Your task to perform on an android device: allow notifications from all sites in the chrome app Image 0: 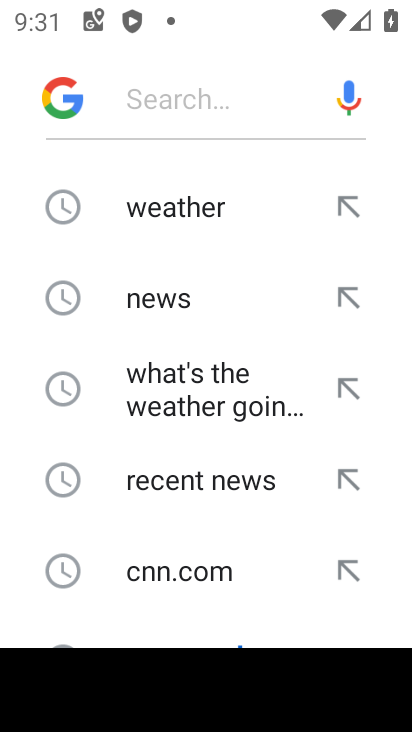
Step 0: press home button
Your task to perform on an android device: allow notifications from all sites in the chrome app Image 1: 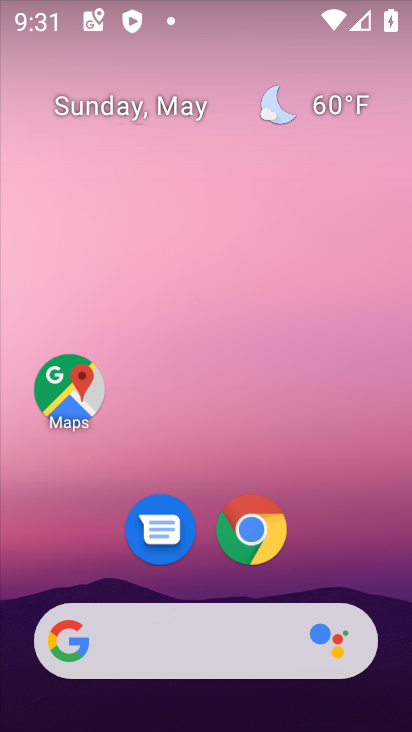
Step 1: drag from (361, 547) to (376, 120)
Your task to perform on an android device: allow notifications from all sites in the chrome app Image 2: 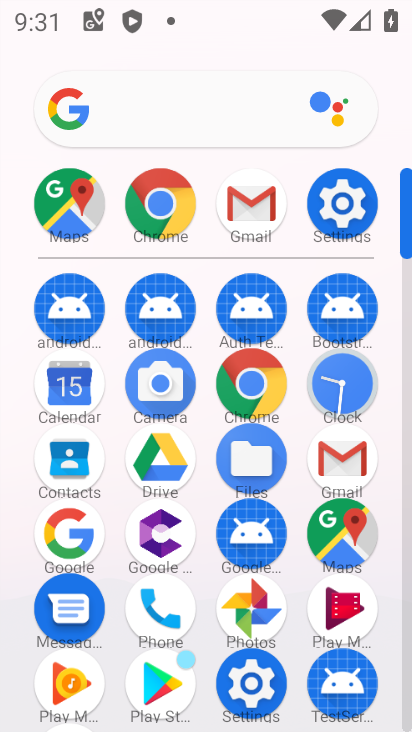
Step 2: click (272, 386)
Your task to perform on an android device: allow notifications from all sites in the chrome app Image 3: 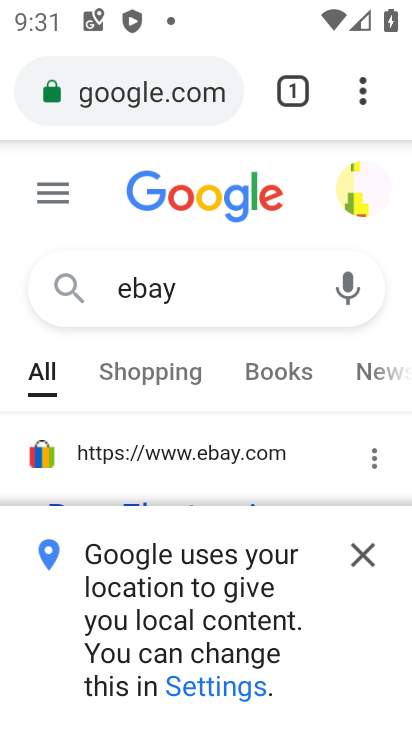
Step 3: click (361, 89)
Your task to perform on an android device: allow notifications from all sites in the chrome app Image 4: 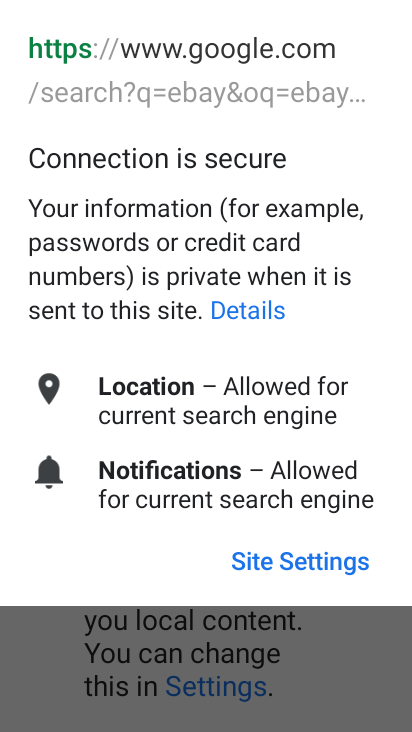
Step 4: press back button
Your task to perform on an android device: allow notifications from all sites in the chrome app Image 5: 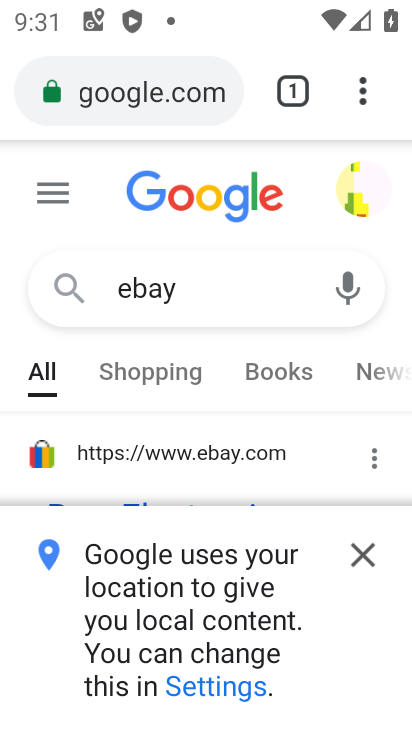
Step 5: click (360, 89)
Your task to perform on an android device: allow notifications from all sites in the chrome app Image 6: 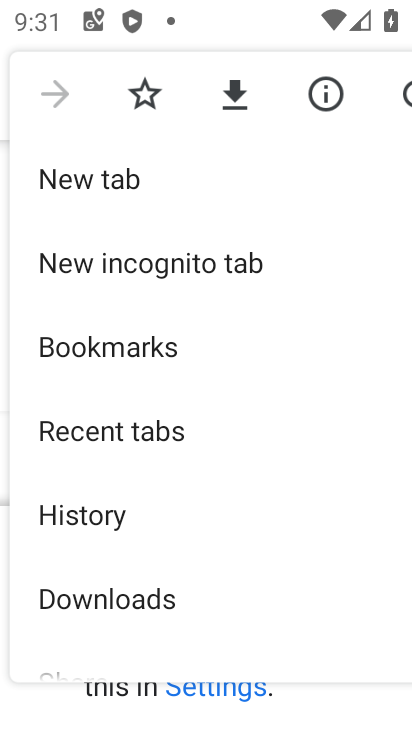
Step 6: drag from (292, 577) to (277, 403)
Your task to perform on an android device: allow notifications from all sites in the chrome app Image 7: 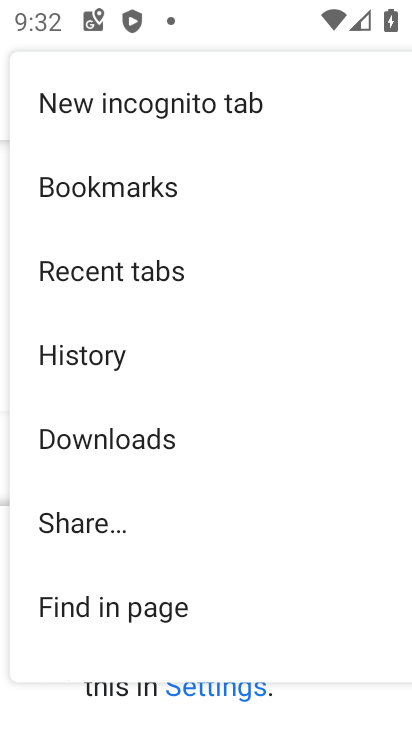
Step 7: drag from (271, 630) to (295, 437)
Your task to perform on an android device: allow notifications from all sites in the chrome app Image 8: 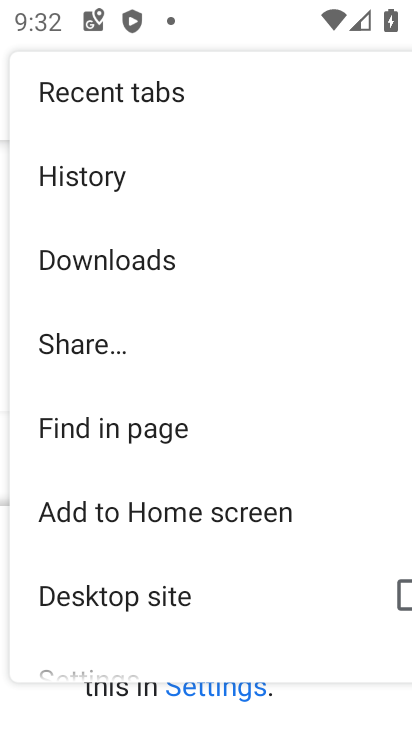
Step 8: drag from (306, 639) to (309, 425)
Your task to perform on an android device: allow notifications from all sites in the chrome app Image 9: 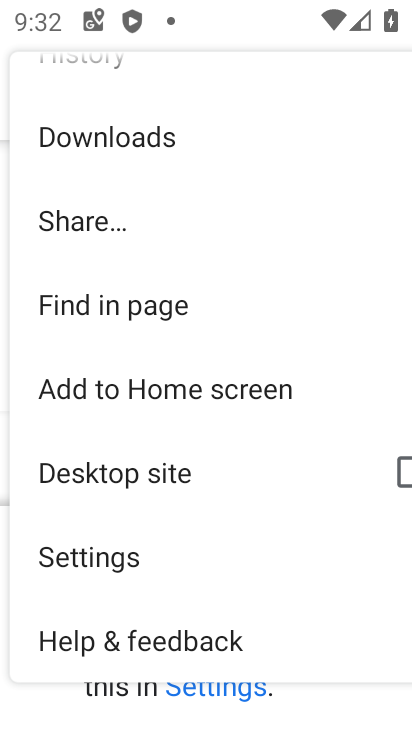
Step 9: click (114, 557)
Your task to perform on an android device: allow notifications from all sites in the chrome app Image 10: 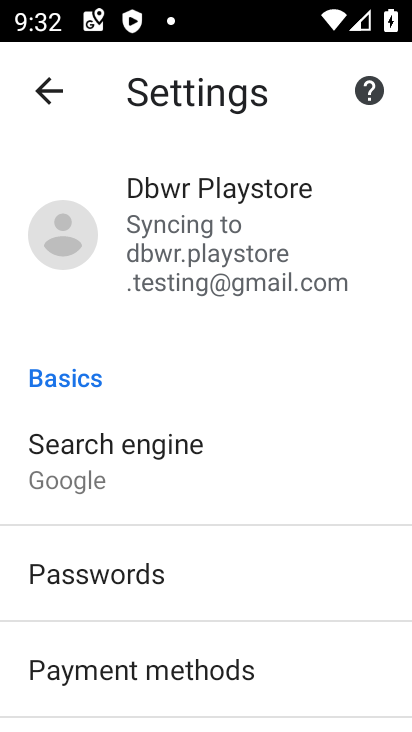
Step 10: drag from (314, 637) to (318, 440)
Your task to perform on an android device: allow notifications from all sites in the chrome app Image 11: 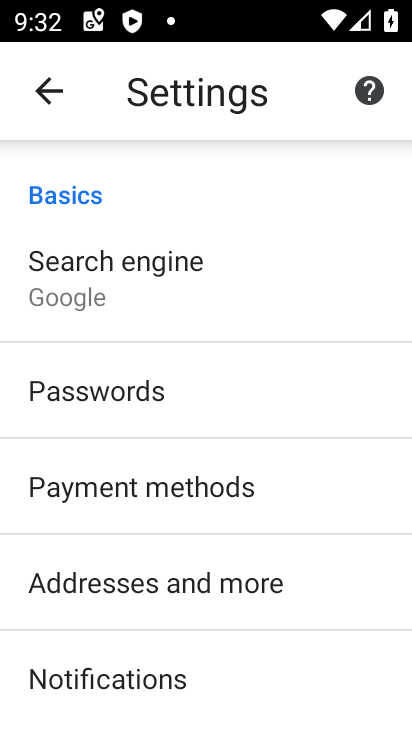
Step 11: drag from (267, 679) to (276, 456)
Your task to perform on an android device: allow notifications from all sites in the chrome app Image 12: 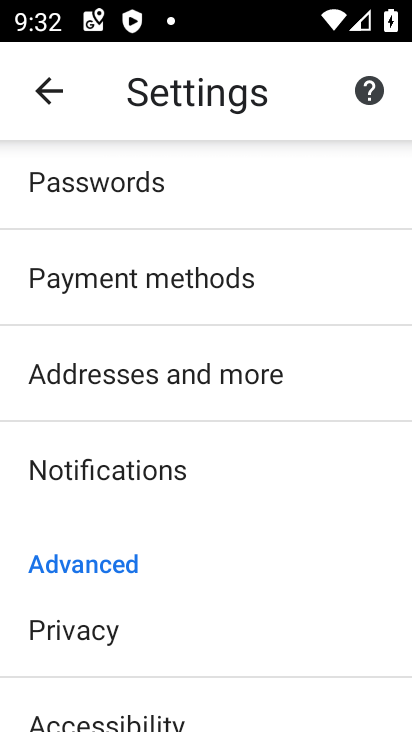
Step 12: drag from (240, 651) to (252, 465)
Your task to perform on an android device: allow notifications from all sites in the chrome app Image 13: 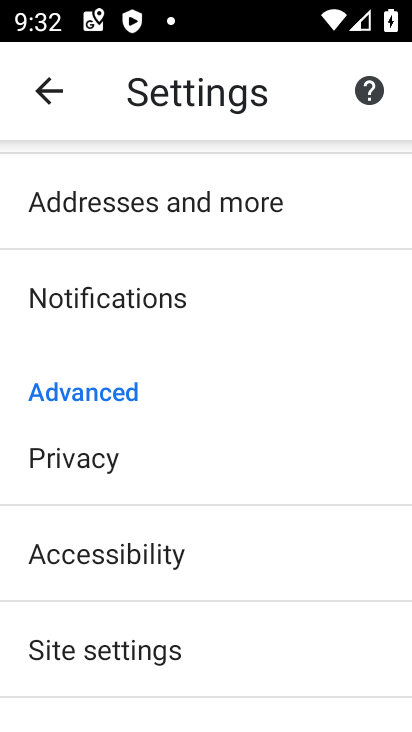
Step 13: drag from (246, 681) to (256, 518)
Your task to perform on an android device: allow notifications from all sites in the chrome app Image 14: 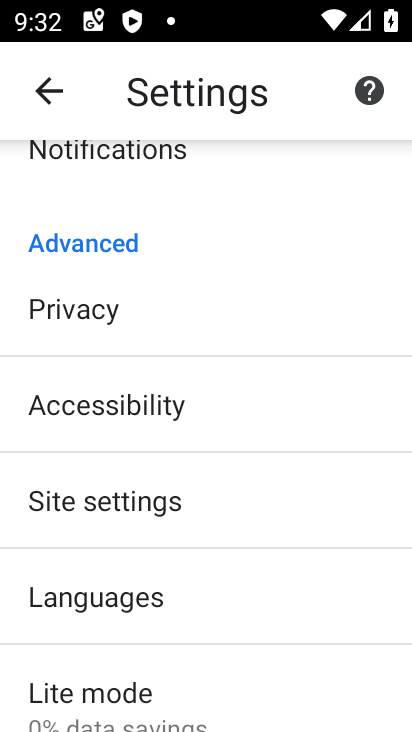
Step 14: click (188, 505)
Your task to perform on an android device: allow notifications from all sites in the chrome app Image 15: 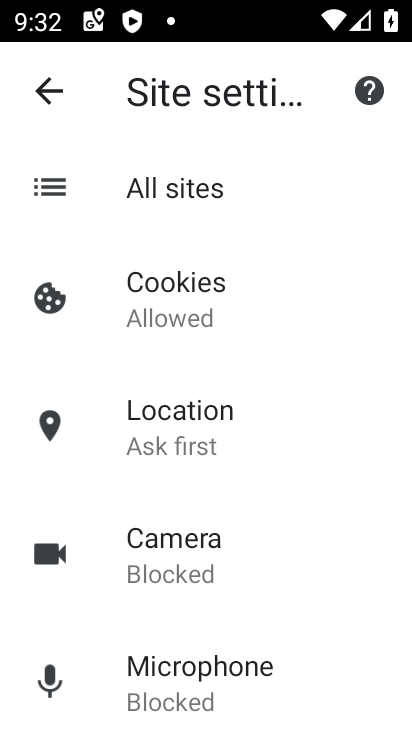
Step 15: drag from (318, 658) to (304, 514)
Your task to perform on an android device: allow notifications from all sites in the chrome app Image 16: 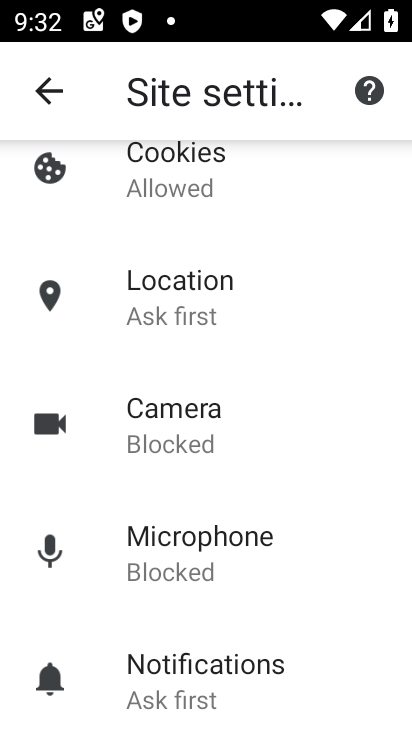
Step 16: drag from (298, 690) to (304, 612)
Your task to perform on an android device: allow notifications from all sites in the chrome app Image 17: 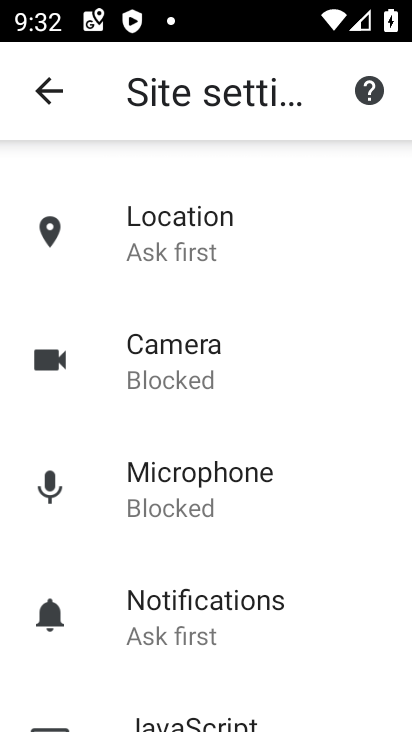
Step 17: click (196, 610)
Your task to perform on an android device: allow notifications from all sites in the chrome app Image 18: 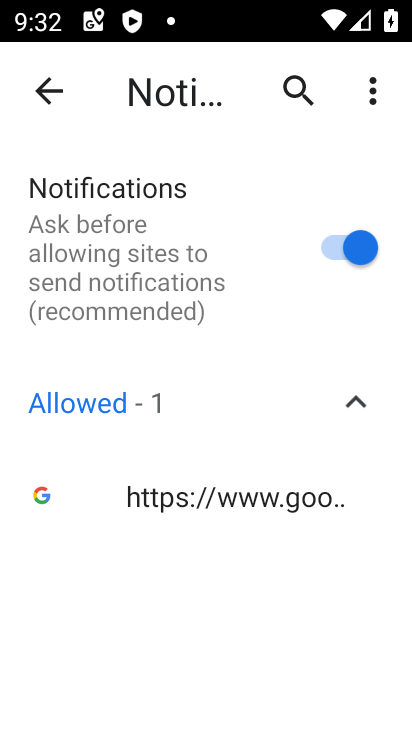
Step 18: task complete